Your task to perform on an android device: find snoozed emails in the gmail app Image 0: 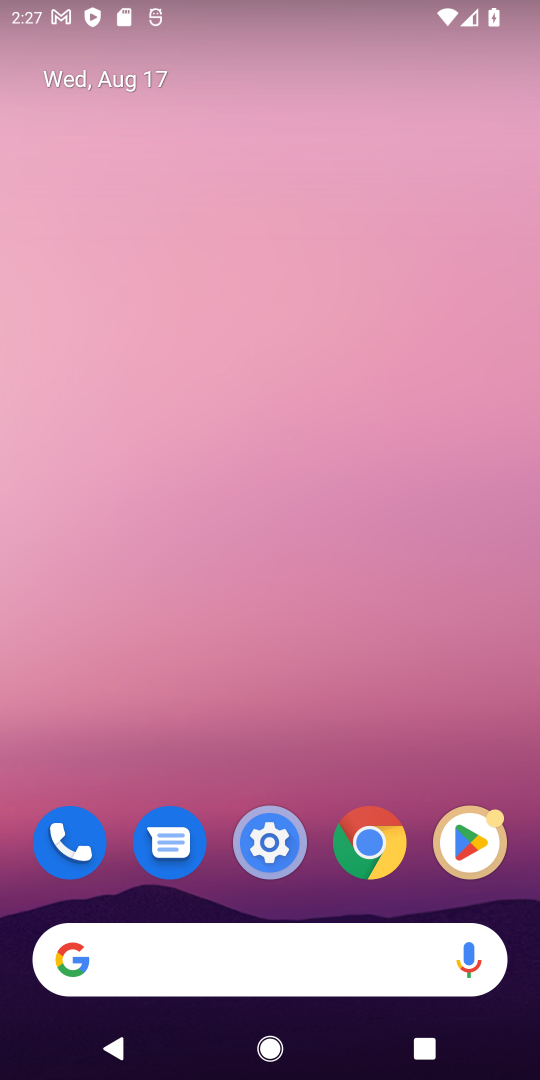
Step 0: drag from (408, 887) to (188, 71)
Your task to perform on an android device: find snoozed emails in the gmail app Image 1: 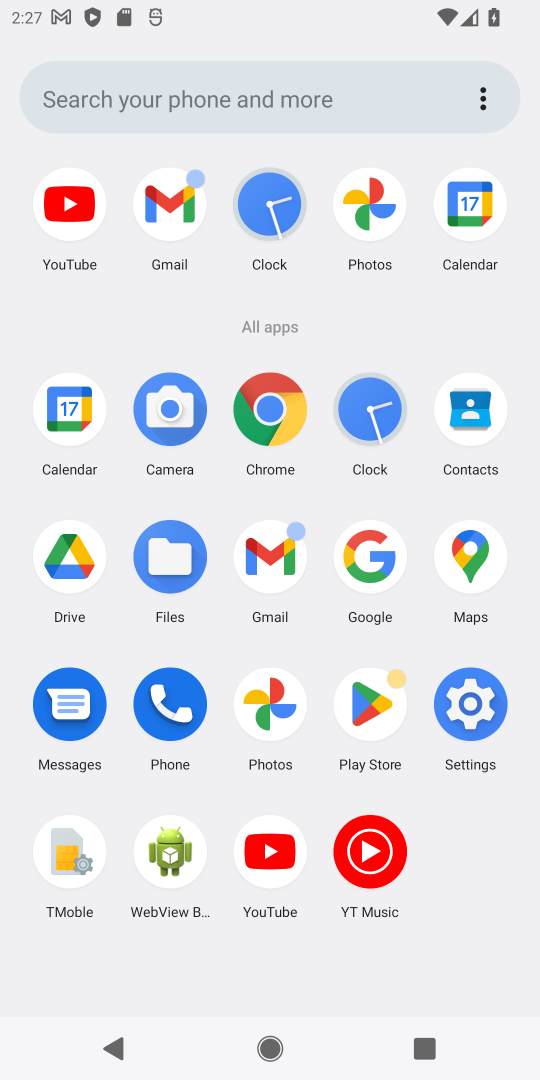
Step 1: click (279, 561)
Your task to perform on an android device: find snoozed emails in the gmail app Image 2: 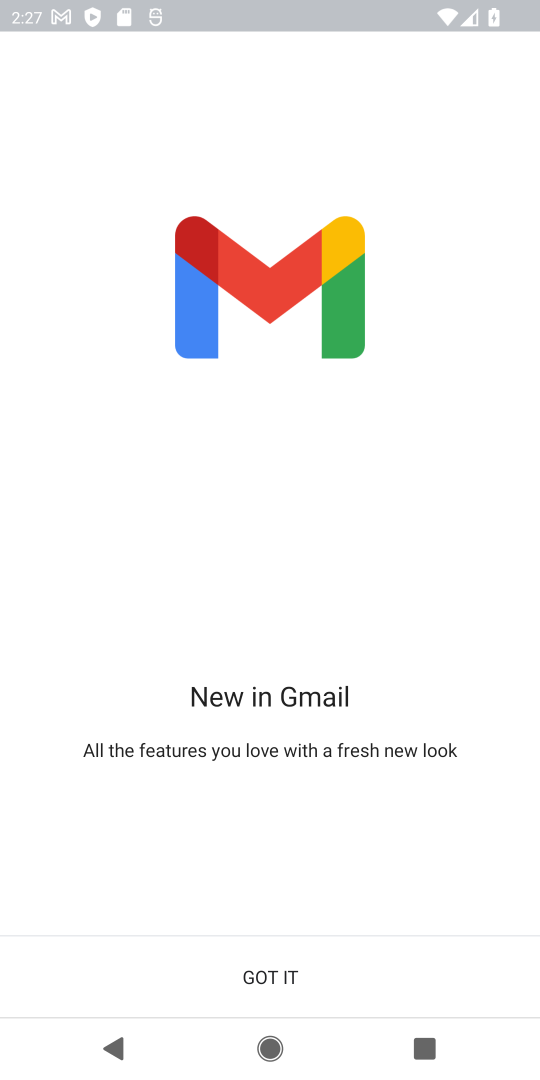
Step 2: click (319, 980)
Your task to perform on an android device: find snoozed emails in the gmail app Image 3: 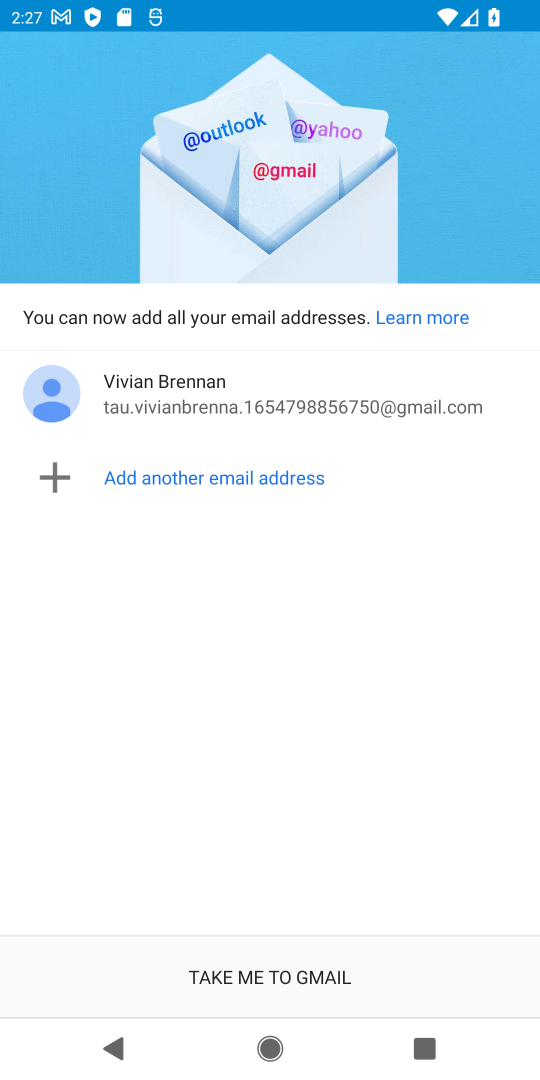
Step 3: click (319, 980)
Your task to perform on an android device: find snoozed emails in the gmail app Image 4: 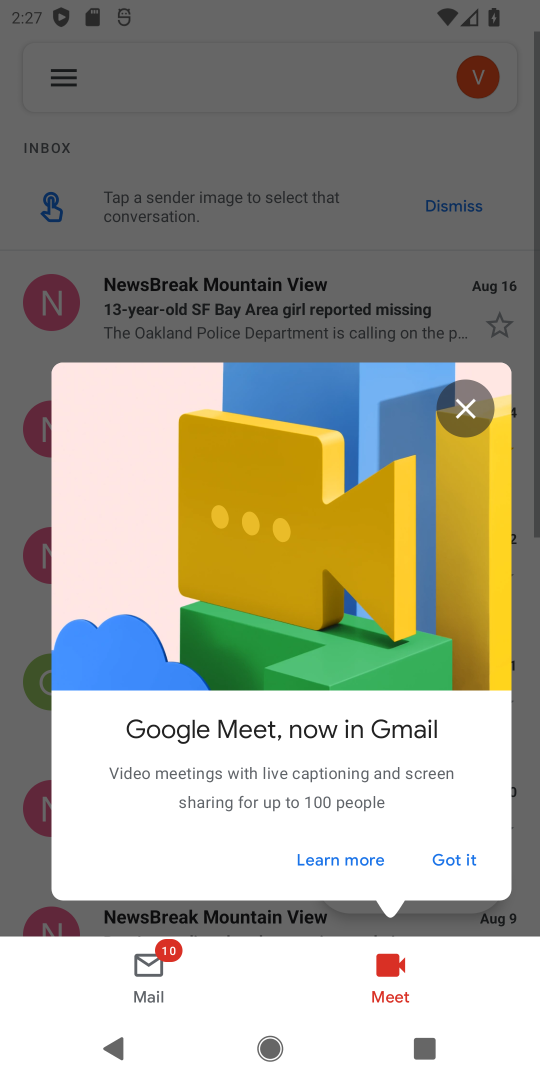
Step 4: click (458, 875)
Your task to perform on an android device: find snoozed emails in the gmail app Image 5: 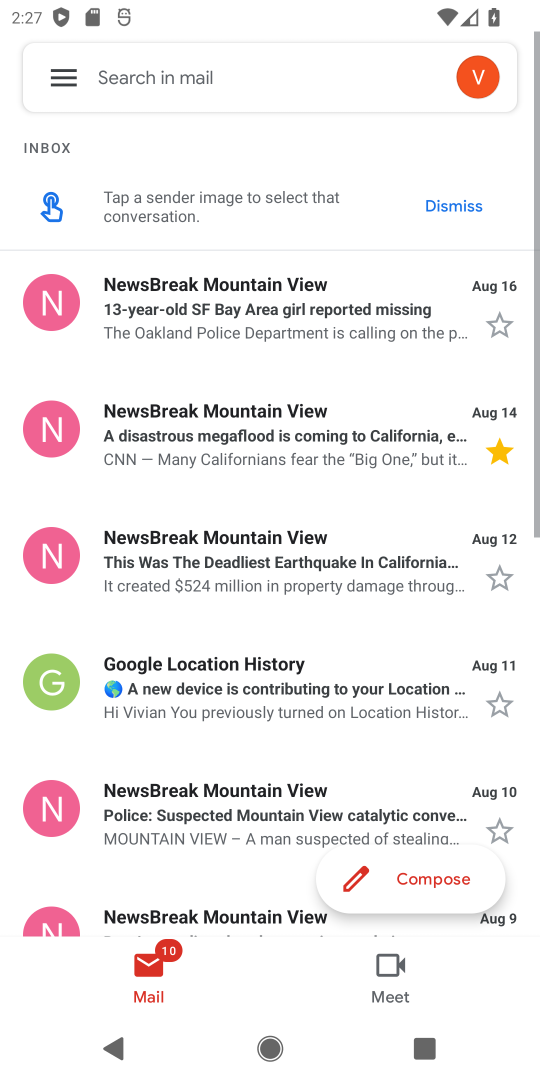
Step 5: click (51, 70)
Your task to perform on an android device: find snoozed emails in the gmail app Image 6: 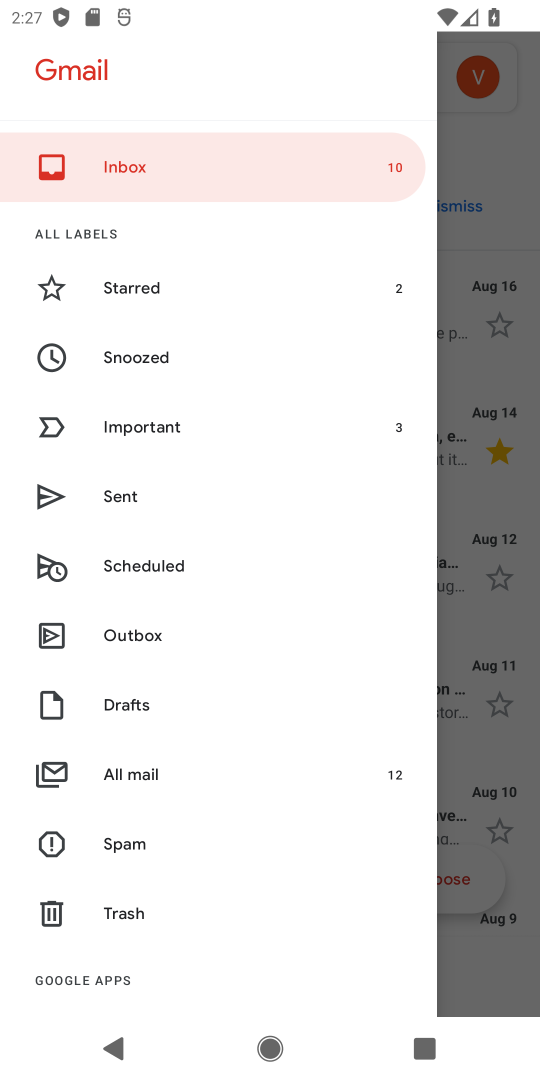
Step 6: click (160, 372)
Your task to perform on an android device: find snoozed emails in the gmail app Image 7: 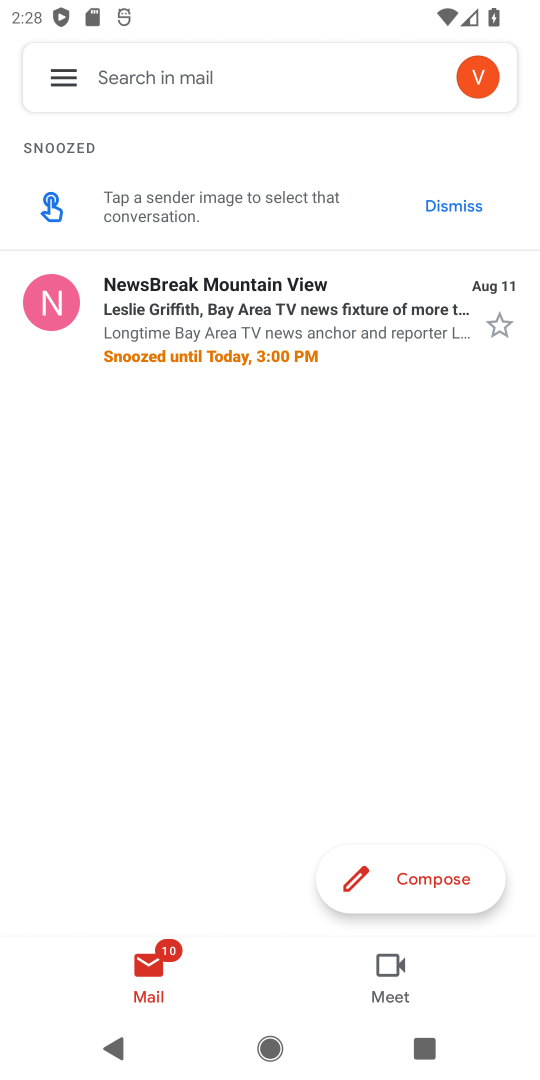
Step 7: task complete